Your task to perform on an android device: turn on notifications settings in the gmail app Image 0: 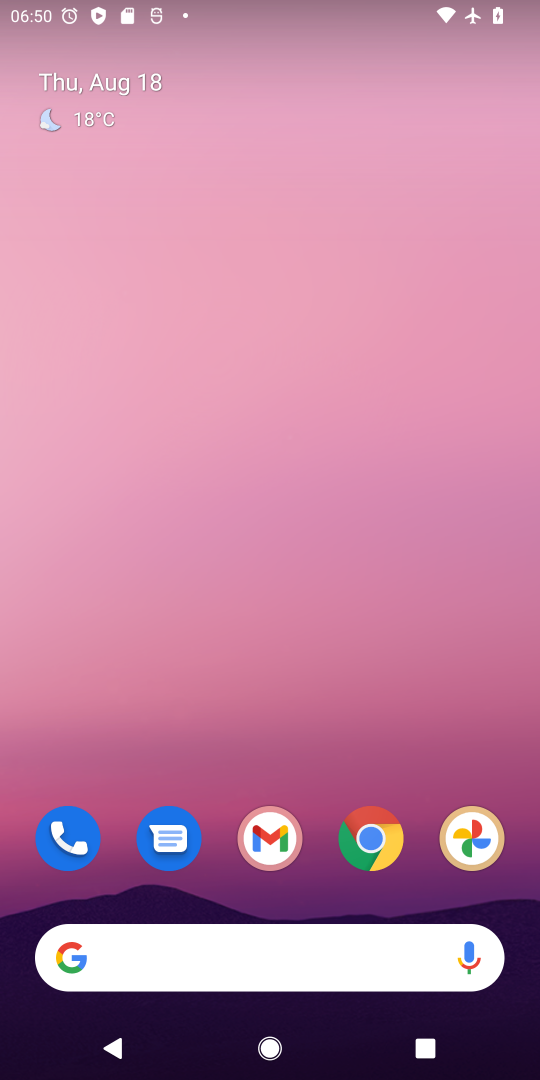
Step 0: press home button
Your task to perform on an android device: turn on notifications settings in the gmail app Image 1: 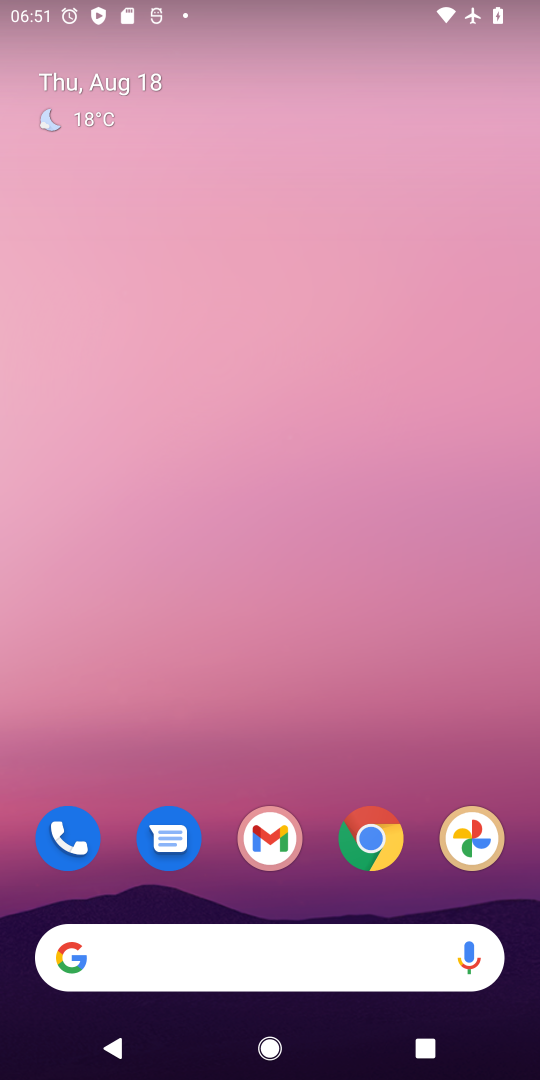
Step 1: click (282, 851)
Your task to perform on an android device: turn on notifications settings in the gmail app Image 2: 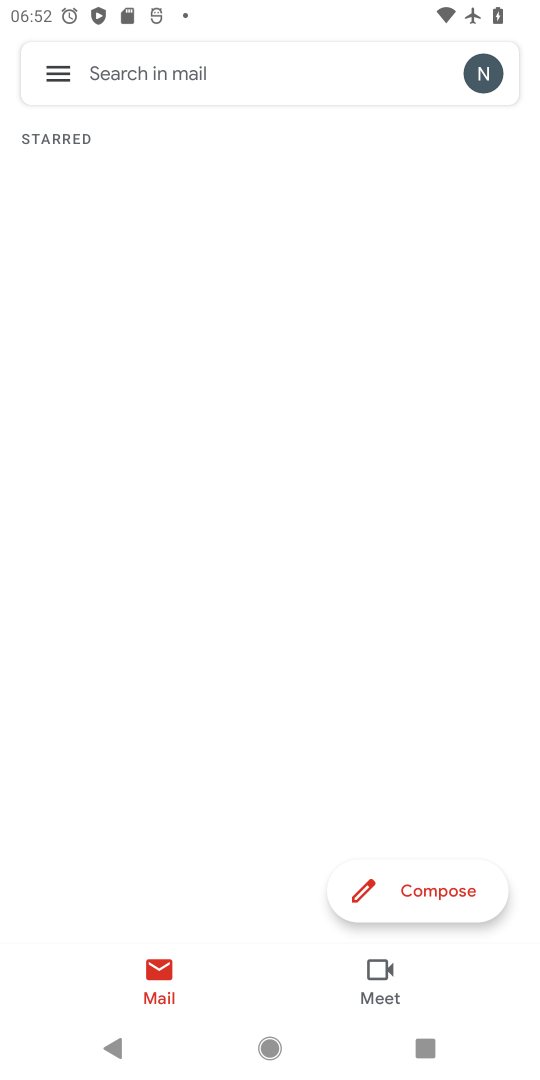
Step 2: click (49, 71)
Your task to perform on an android device: turn on notifications settings in the gmail app Image 3: 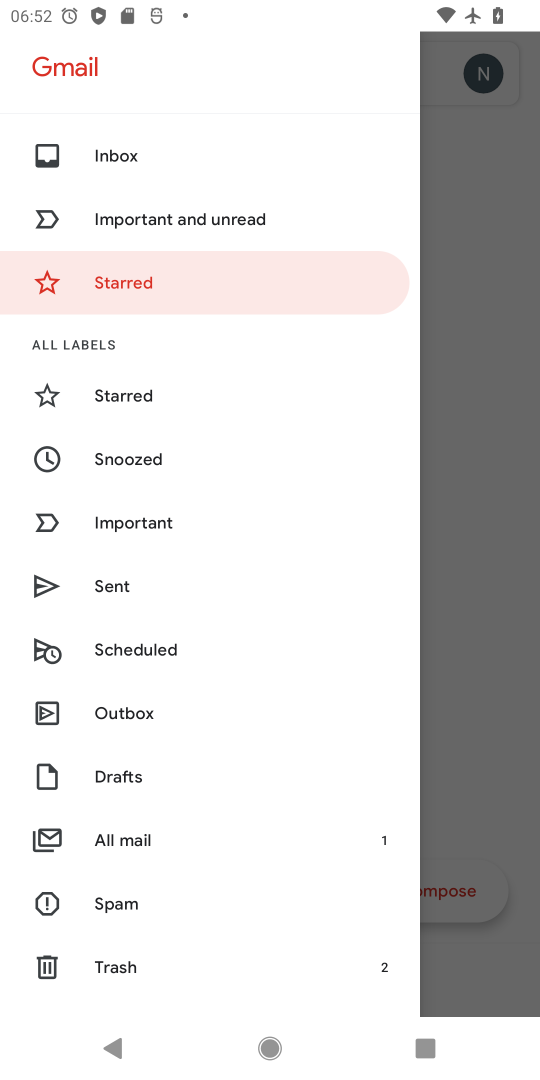
Step 3: drag from (254, 866) to (313, 149)
Your task to perform on an android device: turn on notifications settings in the gmail app Image 4: 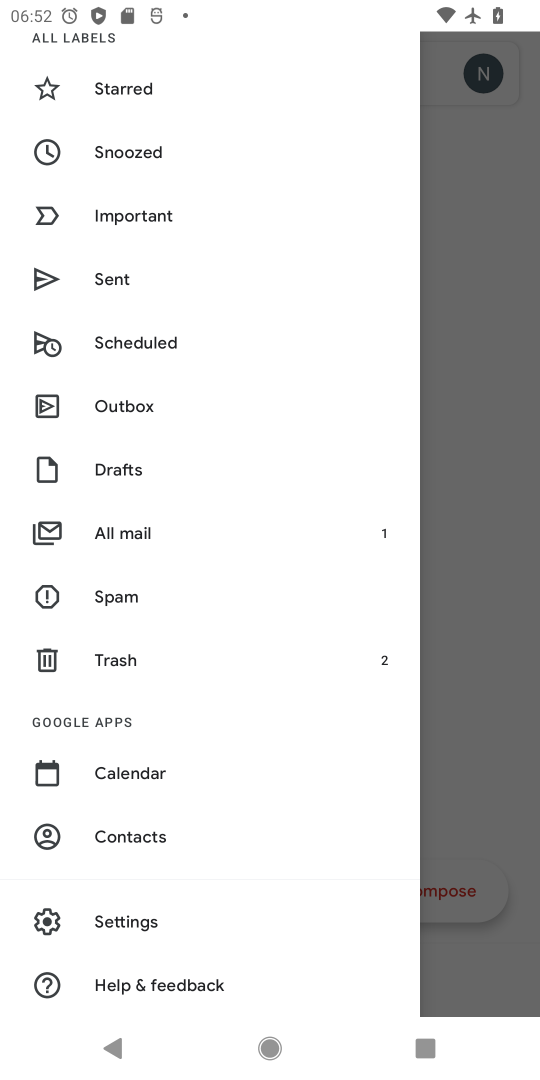
Step 4: click (110, 925)
Your task to perform on an android device: turn on notifications settings in the gmail app Image 5: 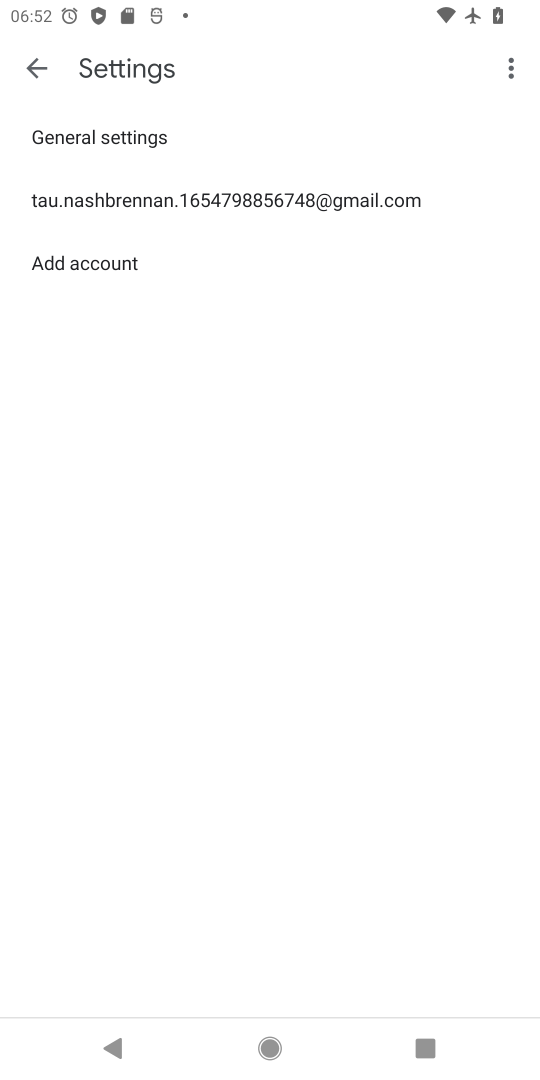
Step 5: click (209, 195)
Your task to perform on an android device: turn on notifications settings in the gmail app Image 6: 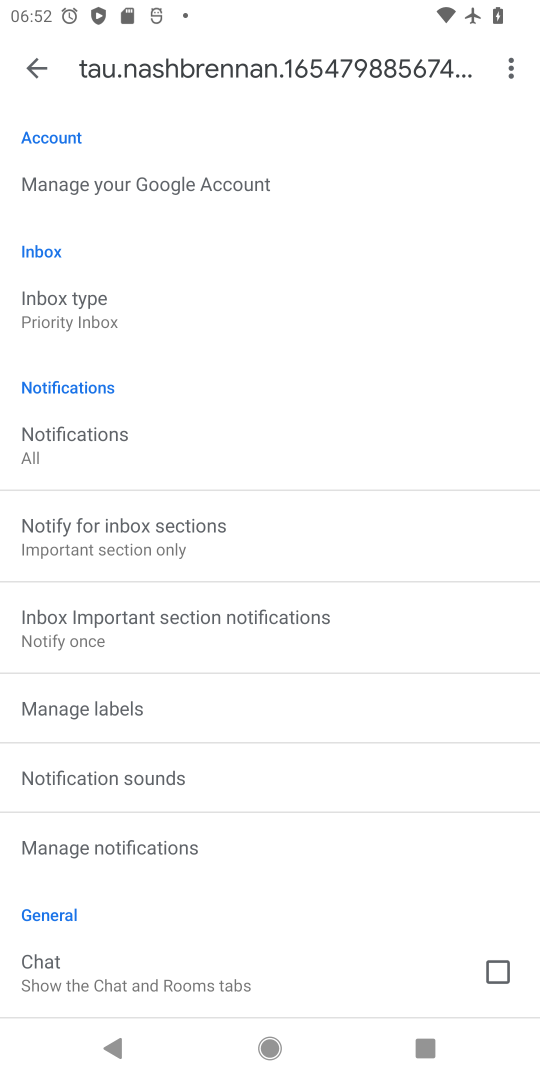
Step 6: click (107, 853)
Your task to perform on an android device: turn on notifications settings in the gmail app Image 7: 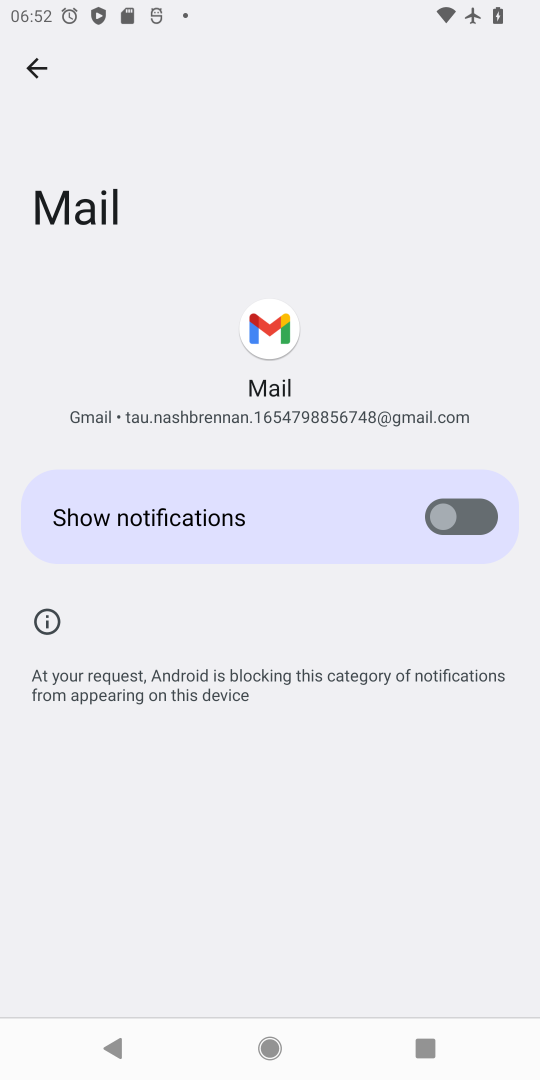
Step 7: click (441, 522)
Your task to perform on an android device: turn on notifications settings in the gmail app Image 8: 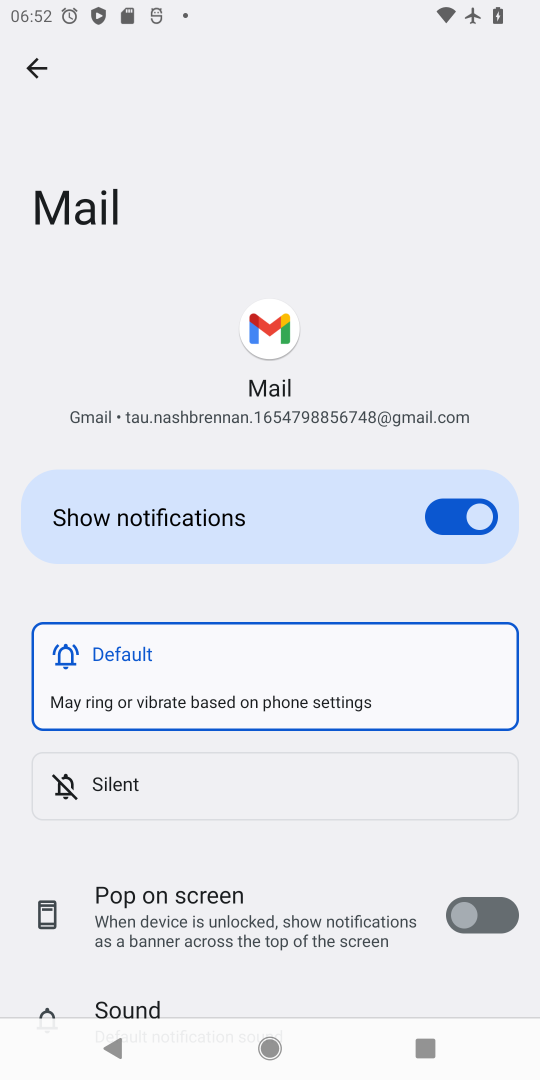
Step 8: task complete